Your task to perform on an android device: add a contact in the contacts app Image 0: 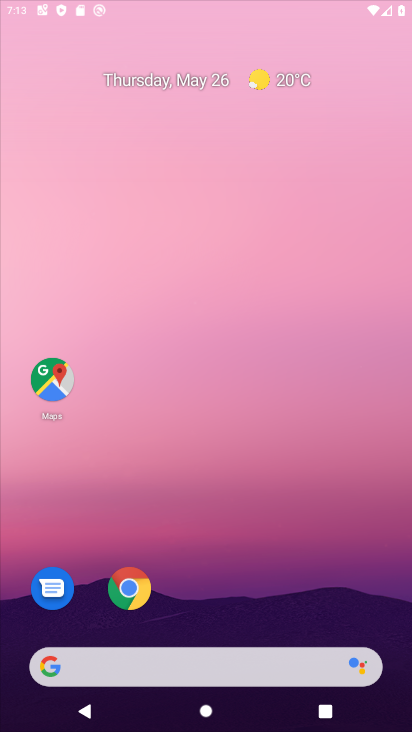
Step 0: drag from (320, 588) to (256, 45)
Your task to perform on an android device: add a contact in the contacts app Image 1: 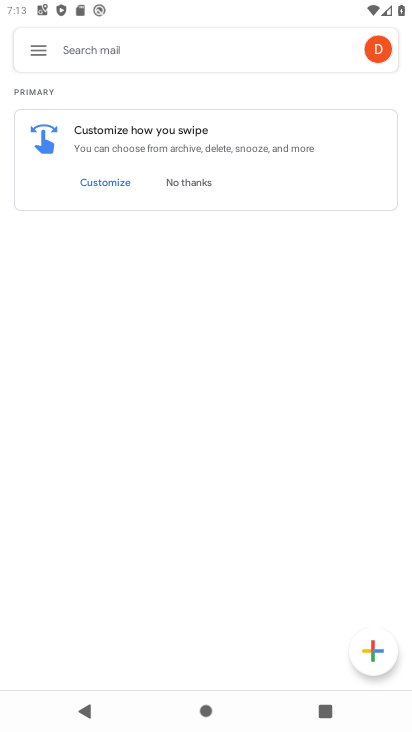
Step 1: press home button
Your task to perform on an android device: add a contact in the contacts app Image 2: 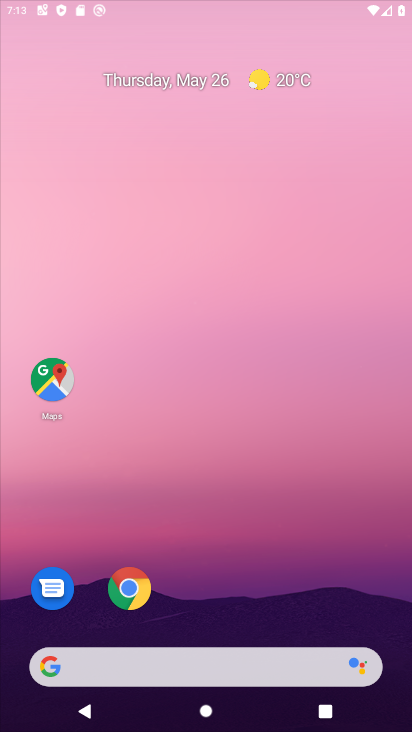
Step 2: drag from (370, 608) to (249, 94)
Your task to perform on an android device: add a contact in the contacts app Image 3: 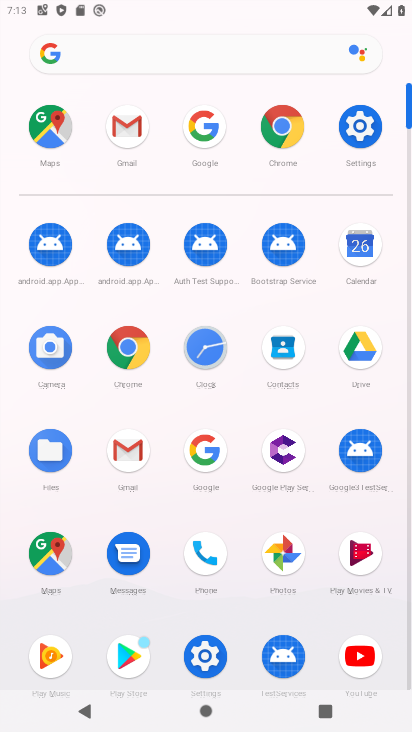
Step 3: click (270, 350)
Your task to perform on an android device: add a contact in the contacts app Image 4: 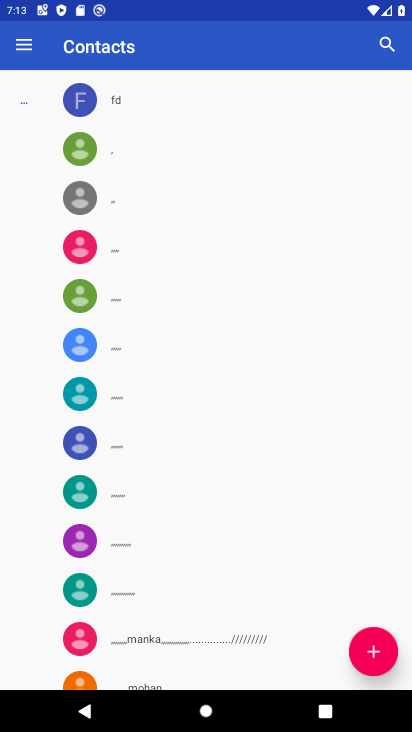
Step 4: click (377, 654)
Your task to perform on an android device: add a contact in the contacts app Image 5: 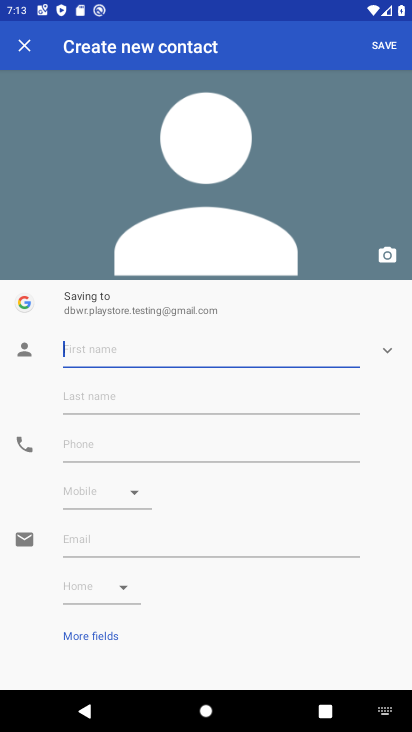
Step 5: type "heena"
Your task to perform on an android device: add a contact in the contacts app Image 6: 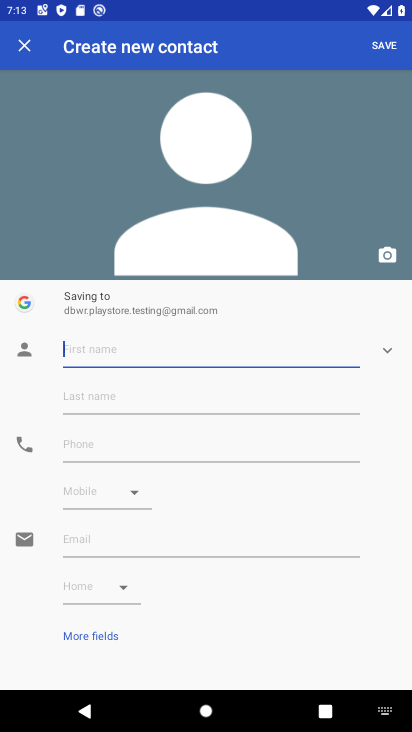
Step 6: click (390, 34)
Your task to perform on an android device: add a contact in the contacts app Image 7: 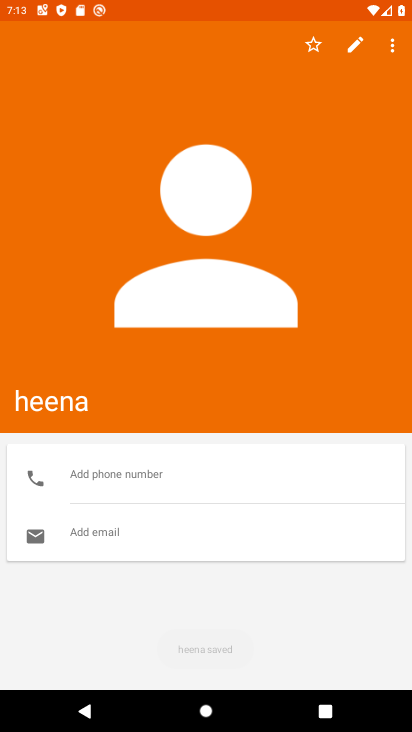
Step 7: task complete